Your task to perform on an android device: check google app version Image 0: 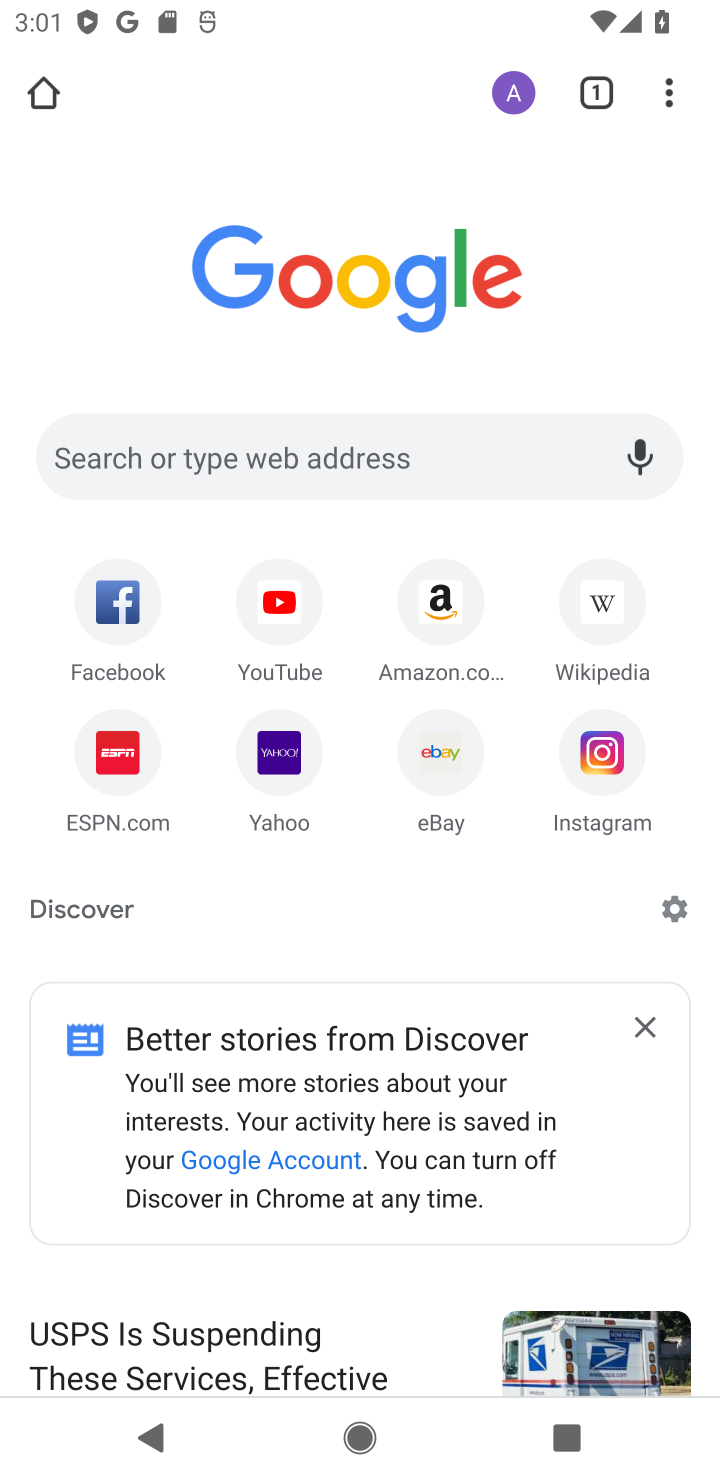
Step 0: press home button
Your task to perform on an android device: check google app version Image 1: 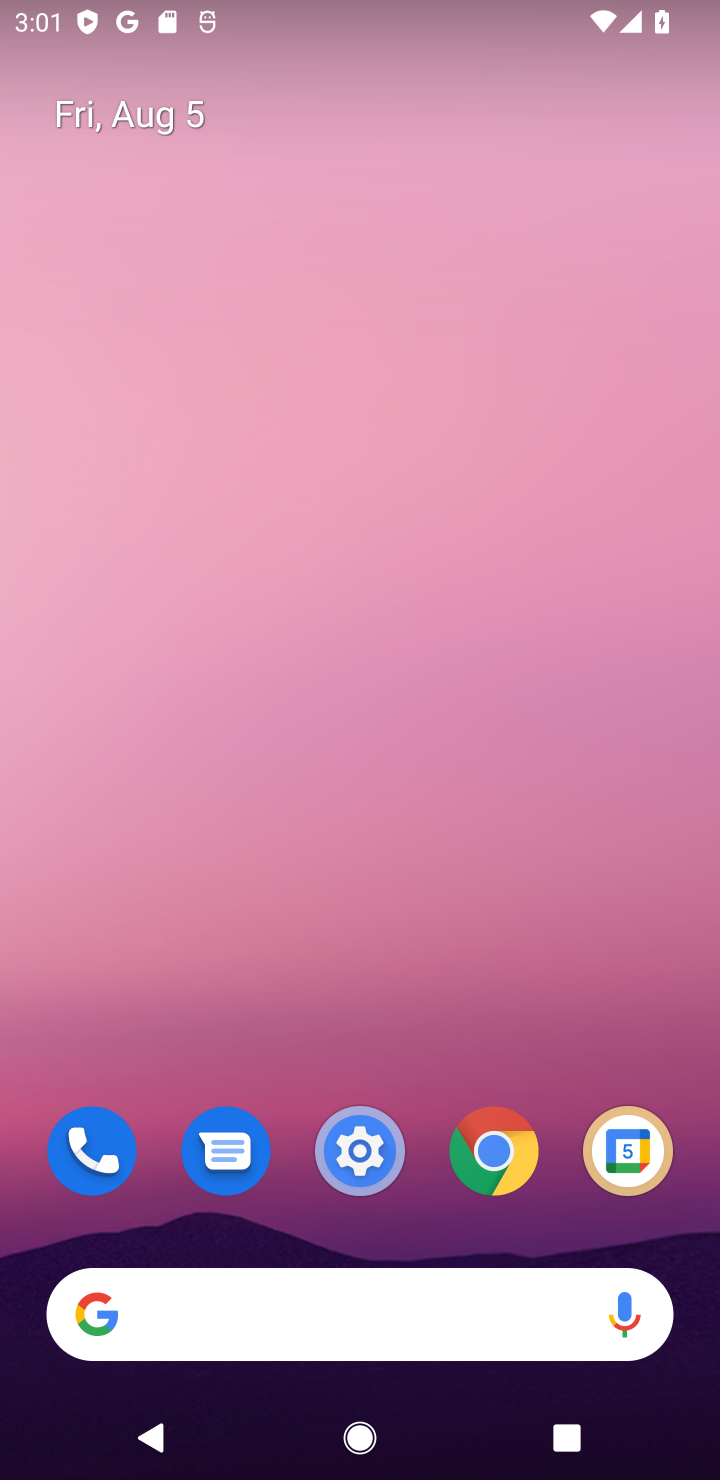
Step 1: drag from (451, 1006) to (322, 60)
Your task to perform on an android device: check google app version Image 2: 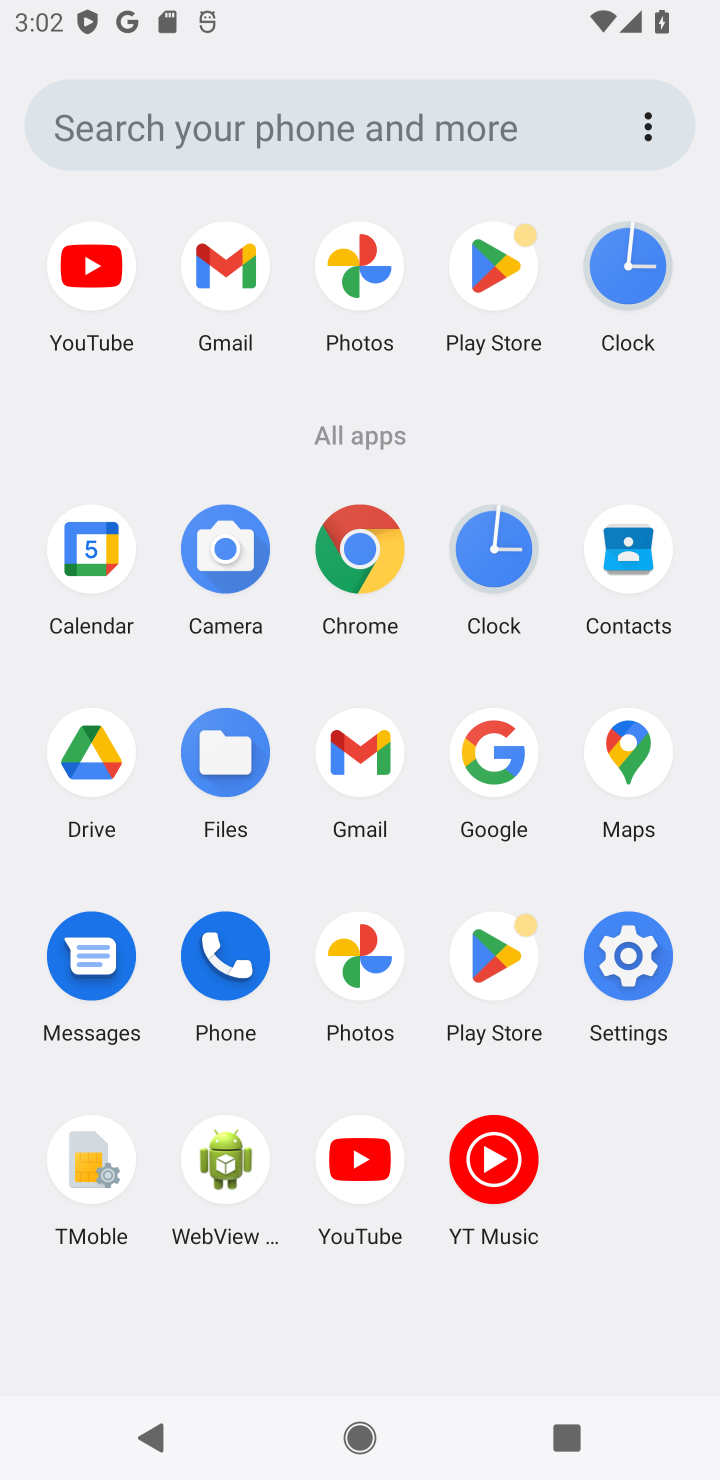
Step 2: click (500, 777)
Your task to perform on an android device: check google app version Image 3: 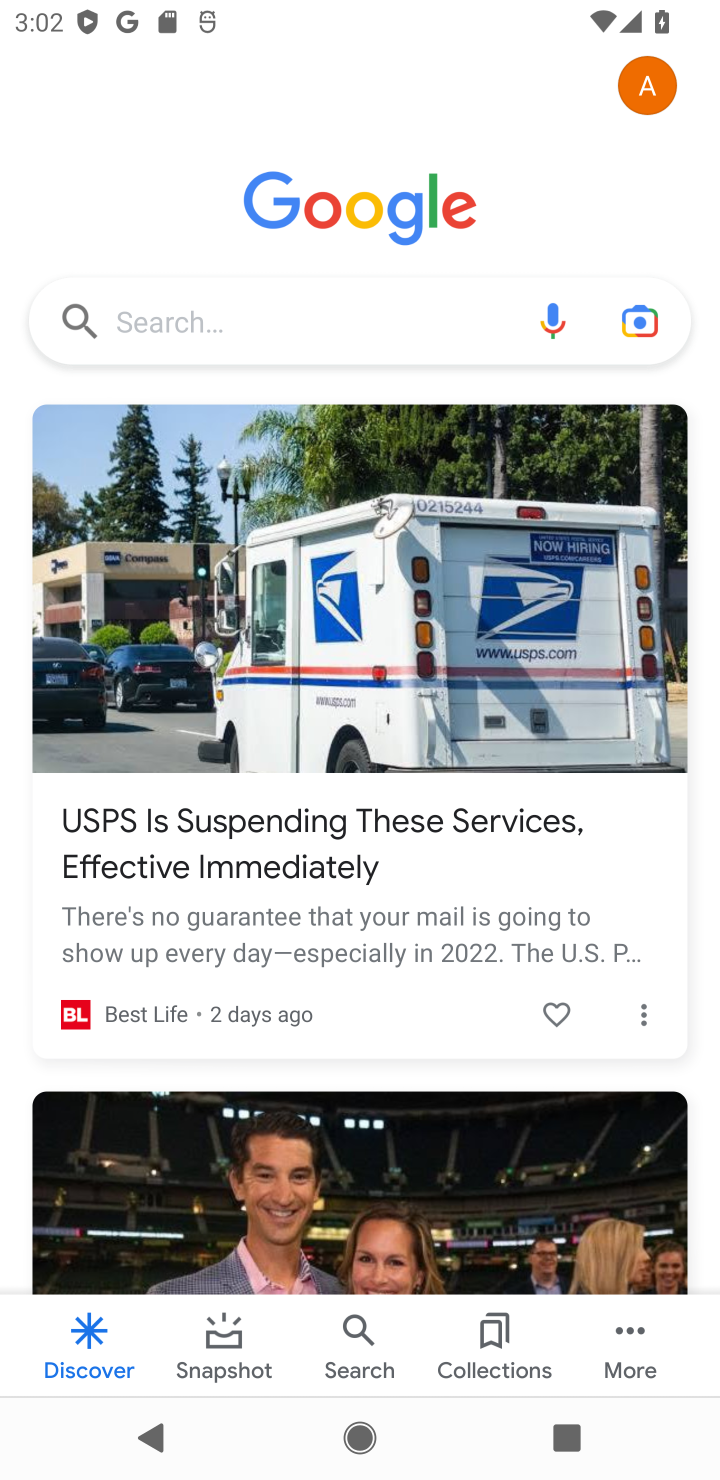
Step 3: click (619, 1326)
Your task to perform on an android device: check google app version Image 4: 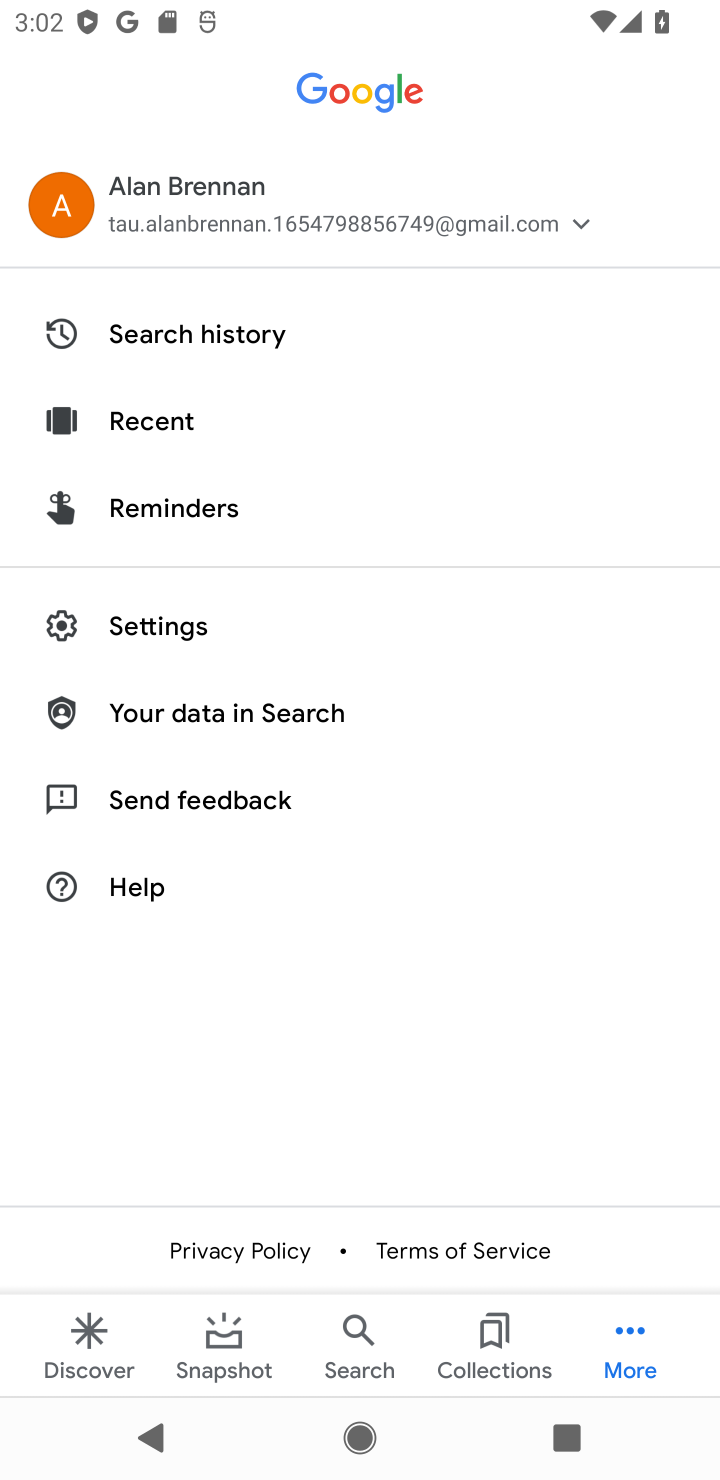
Step 4: click (207, 636)
Your task to perform on an android device: check google app version Image 5: 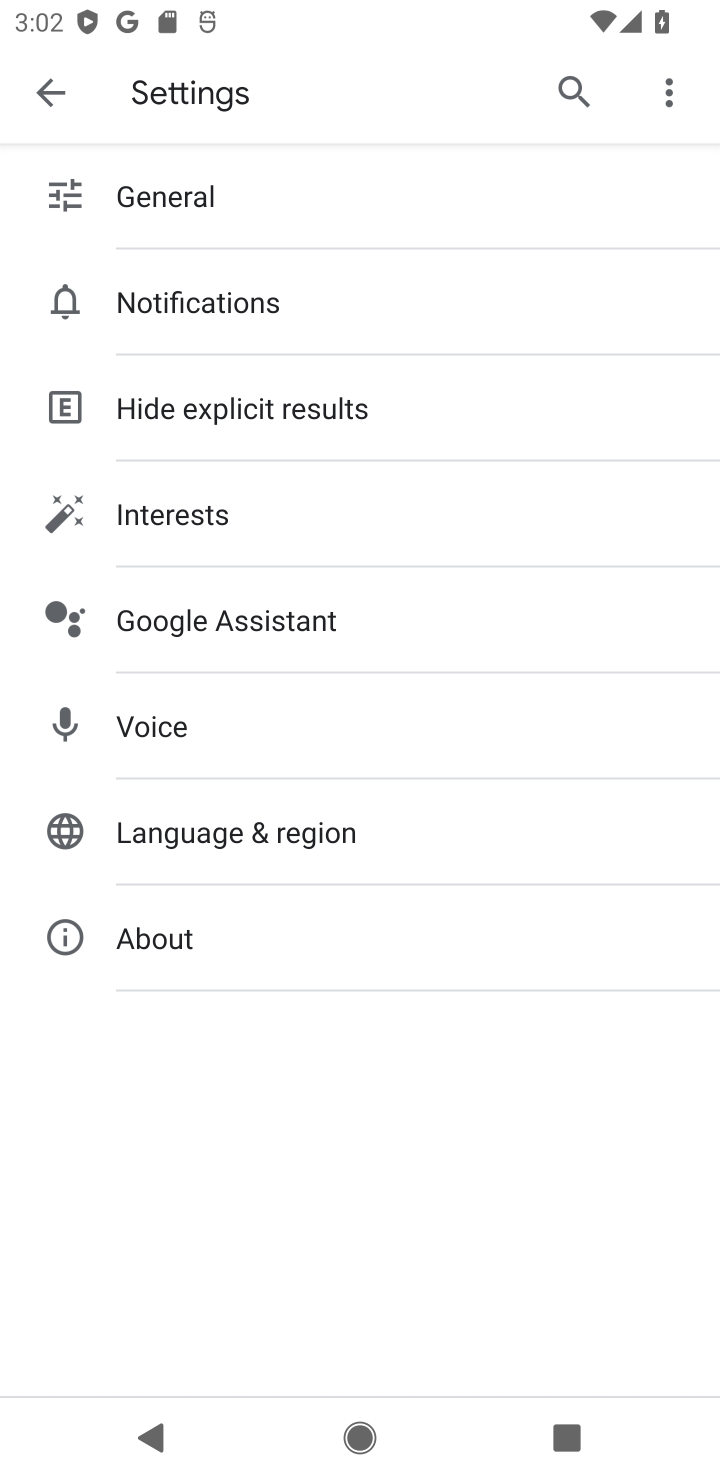
Step 5: click (243, 949)
Your task to perform on an android device: check google app version Image 6: 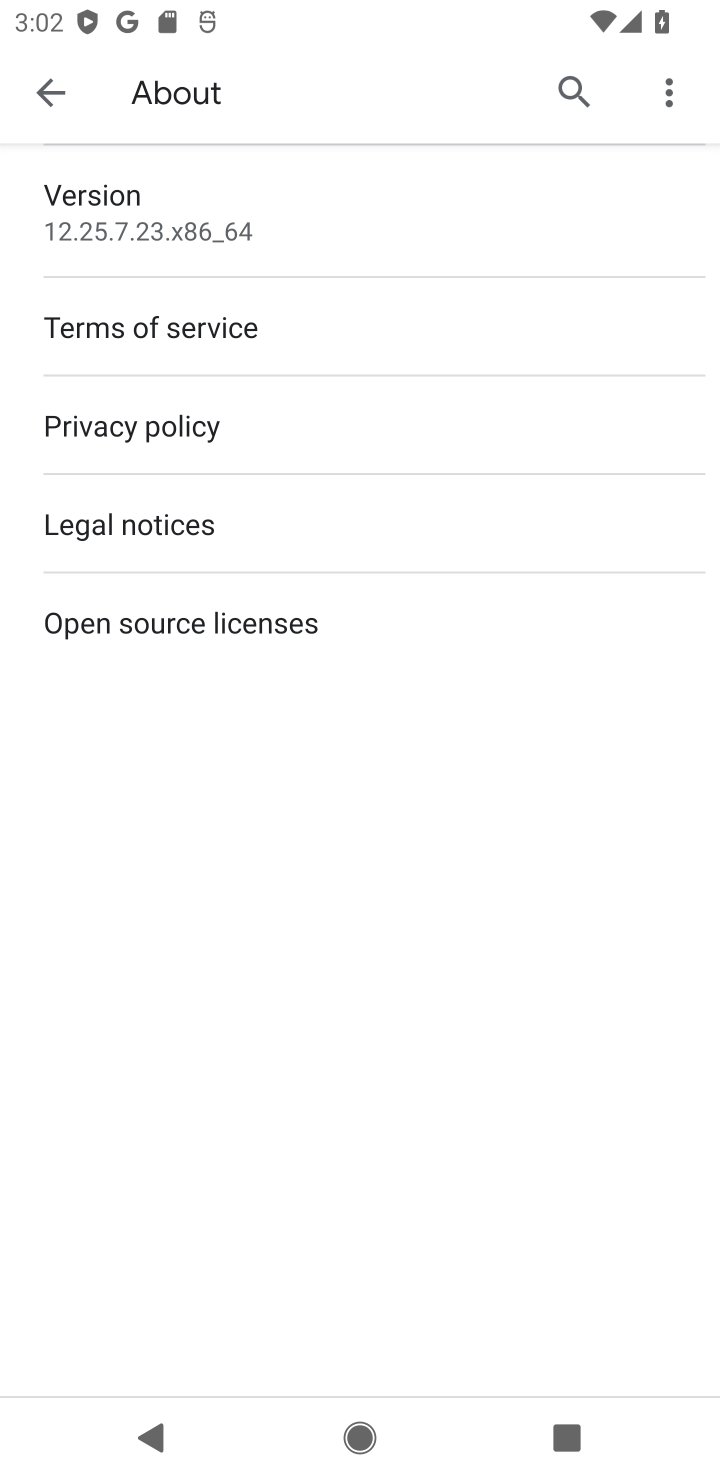
Step 6: click (187, 201)
Your task to perform on an android device: check google app version Image 7: 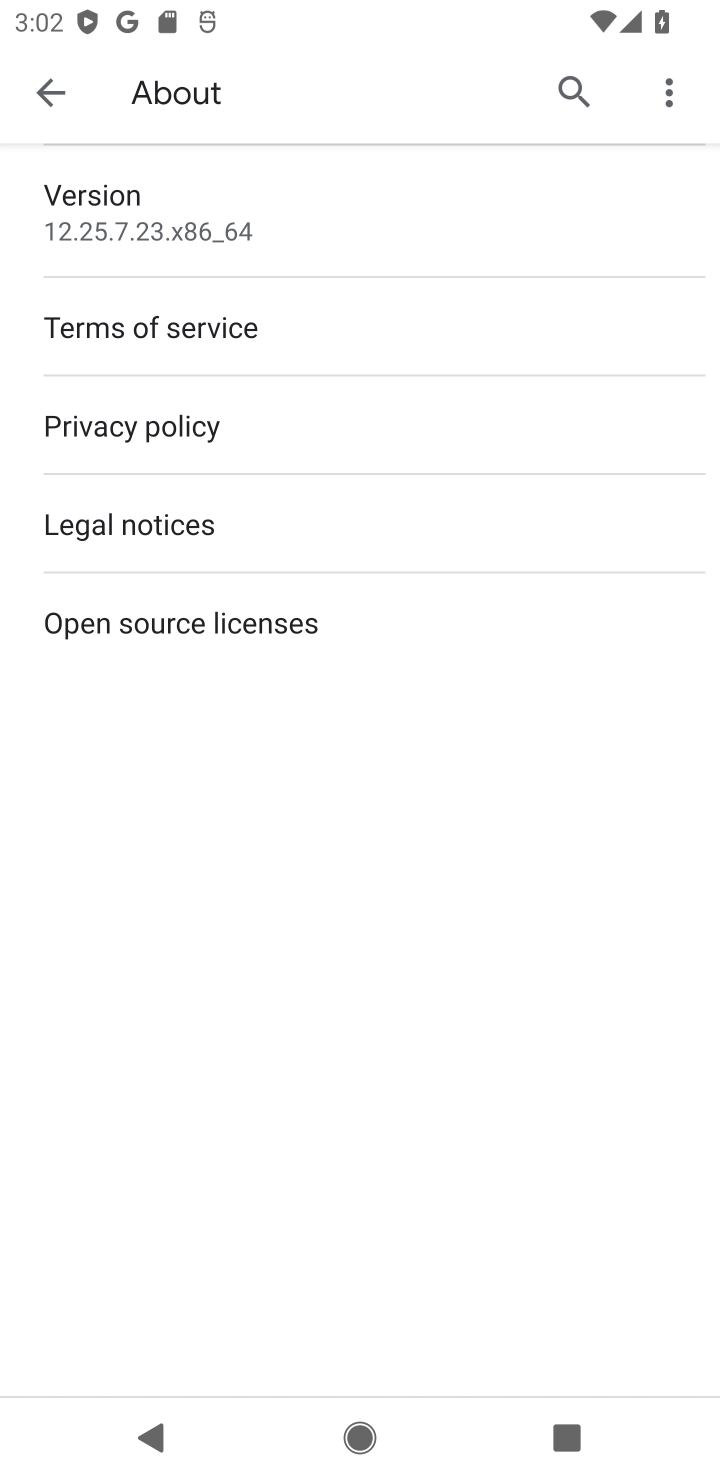
Step 7: task complete